Your task to perform on an android device: turn off airplane mode Image 0: 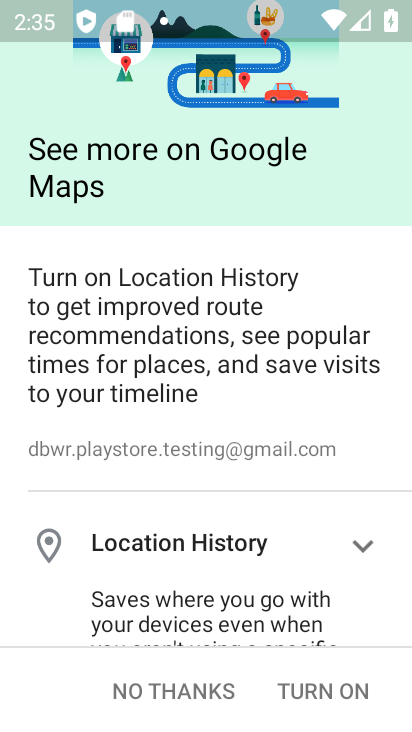
Step 0: press home button
Your task to perform on an android device: turn off airplane mode Image 1: 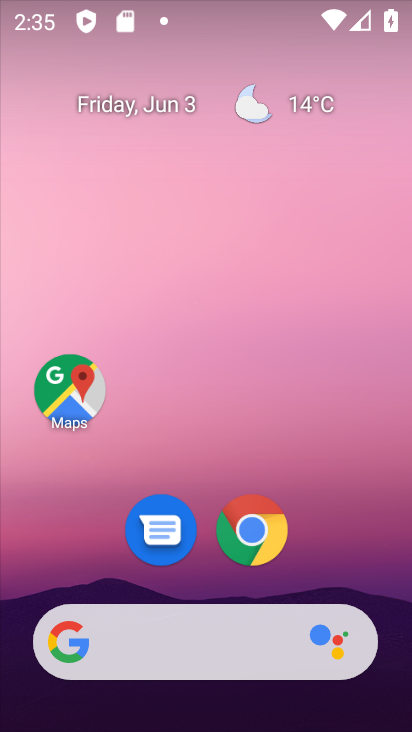
Step 1: drag from (118, 371) to (183, 159)
Your task to perform on an android device: turn off airplane mode Image 2: 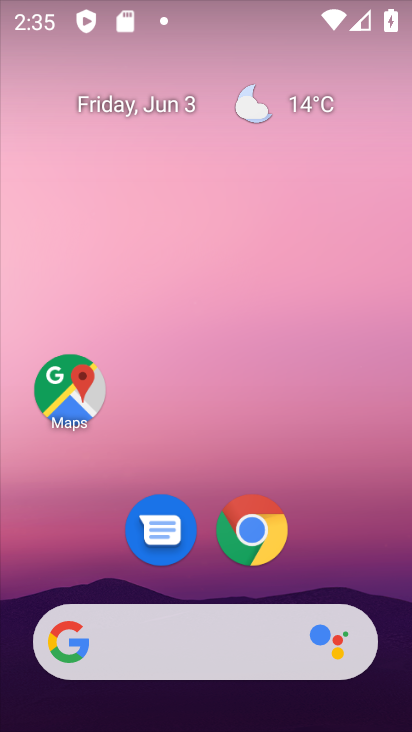
Step 2: drag from (166, 630) to (280, 102)
Your task to perform on an android device: turn off airplane mode Image 3: 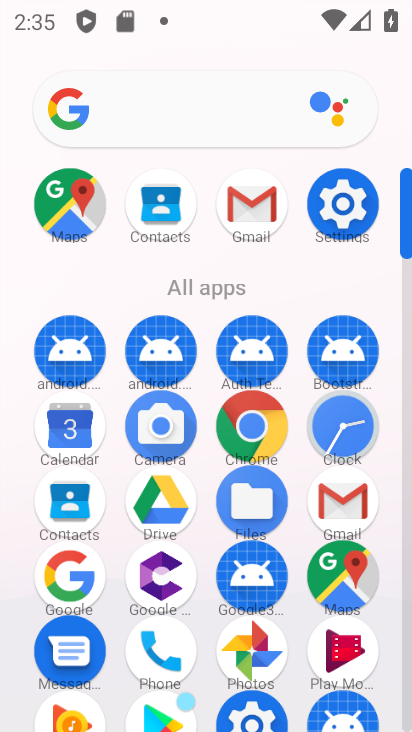
Step 3: drag from (165, 600) to (215, 392)
Your task to perform on an android device: turn off airplane mode Image 4: 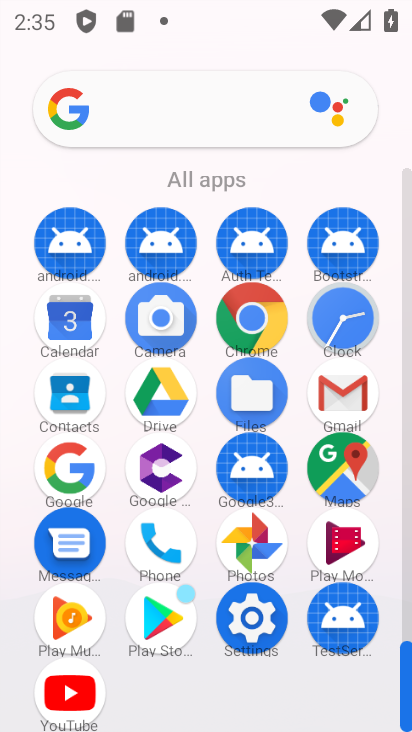
Step 4: click (252, 632)
Your task to perform on an android device: turn off airplane mode Image 5: 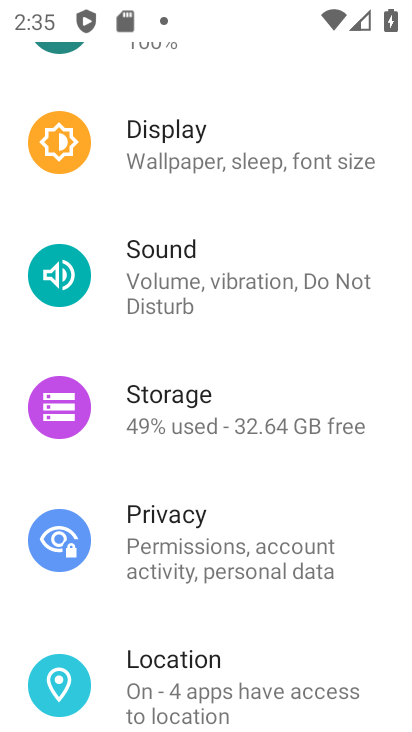
Step 5: drag from (289, 195) to (243, 608)
Your task to perform on an android device: turn off airplane mode Image 6: 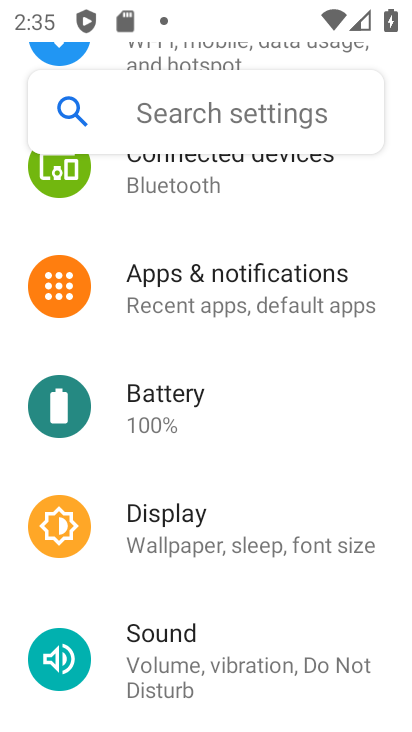
Step 6: drag from (295, 266) to (249, 485)
Your task to perform on an android device: turn off airplane mode Image 7: 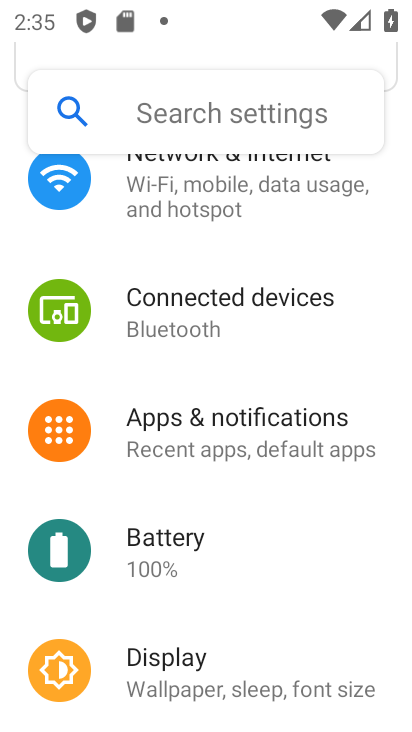
Step 7: click (279, 200)
Your task to perform on an android device: turn off airplane mode Image 8: 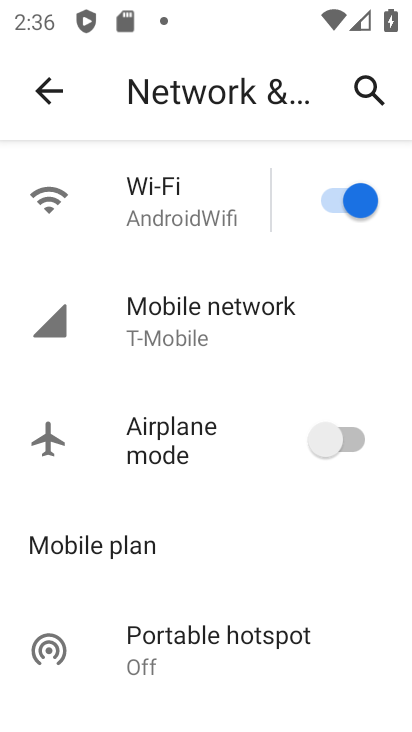
Step 8: task complete